Your task to perform on an android device: turn notification dots off Image 0: 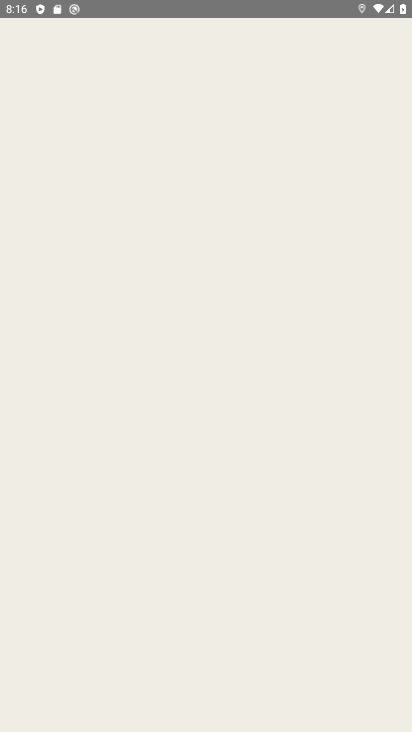
Step 0: drag from (246, 587) to (326, 62)
Your task to perform on an android device: turn notification dots off Image 1: 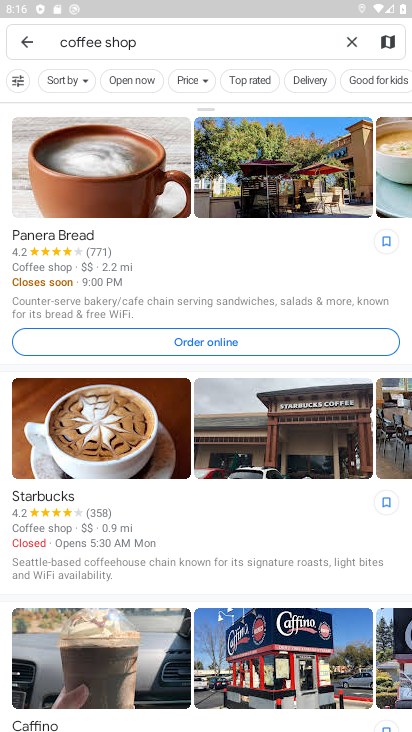
Step 1: press home button
Your task to perform on an android device: turn notification dots off Image 2: 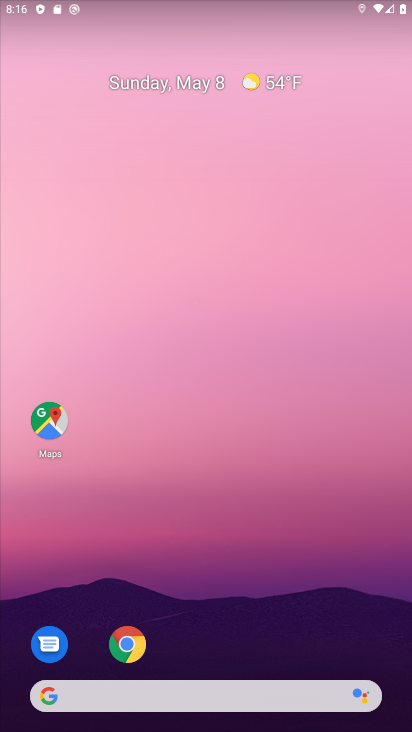
Step 2: press home button
Your task to perform on an android device: turn notification dots off Image 3: 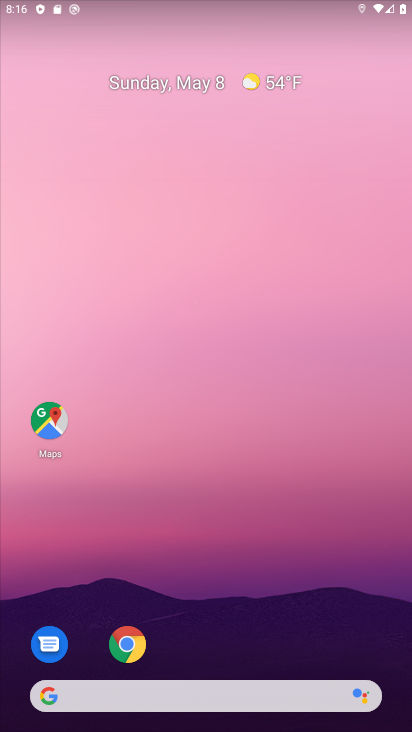
Step 3: drag from (174, 614) to (148, 13)
Your task to perform on an android device: turn notification dots off Image 4: 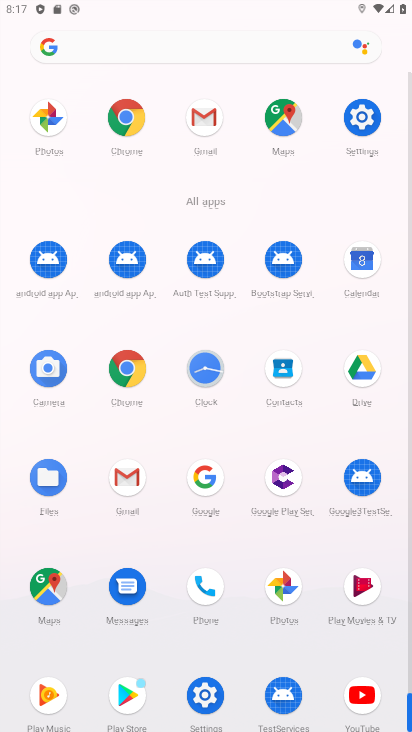
Step 4: click (372, 114)
Your task to perform on an android device: turn notification dots off Image 5: 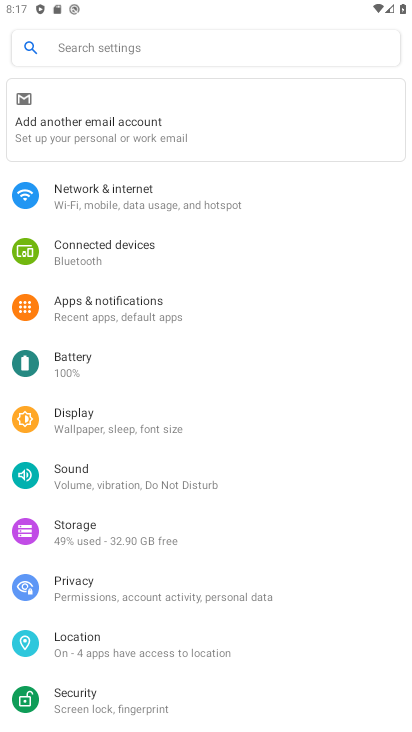
Step 5: click (120, 316)
Your task to perform on an android device: turn notification dots off Image 6: 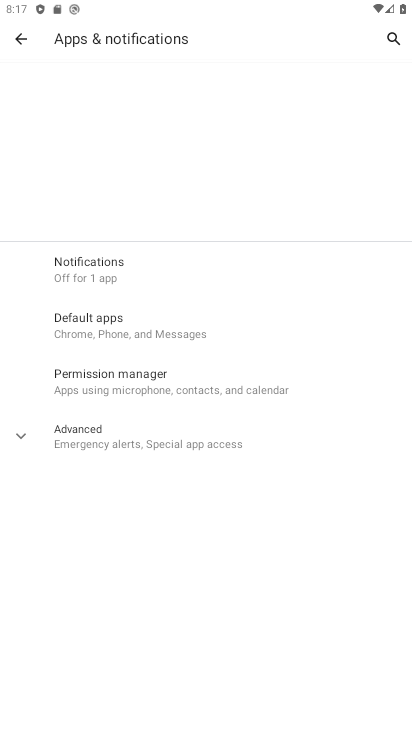
Step 6: drag from (205, 543) to (247, 136)
Your task to perform on an android device: turn notification dots off Image 7: 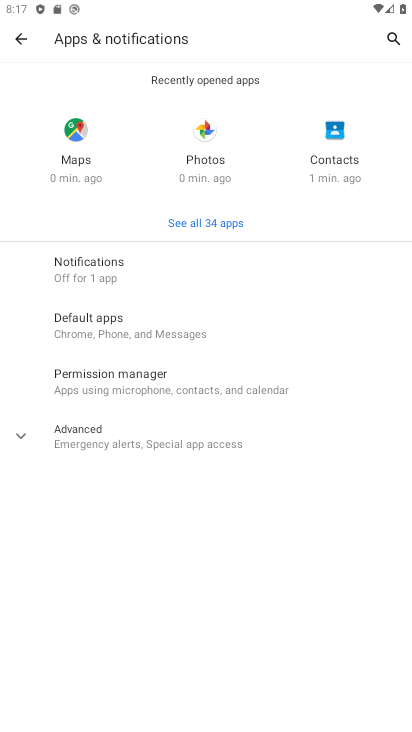
Step 7: click (103, 270)
Your task to perform on an android device: turn notification dots off Image 8: 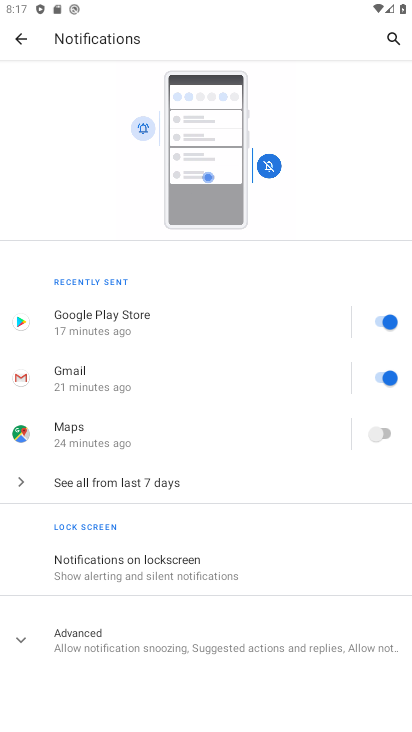
Step 8: drag from (246, 615) to (237, 278)
Your task to perform on an android device: turn notification dots off Image 9: 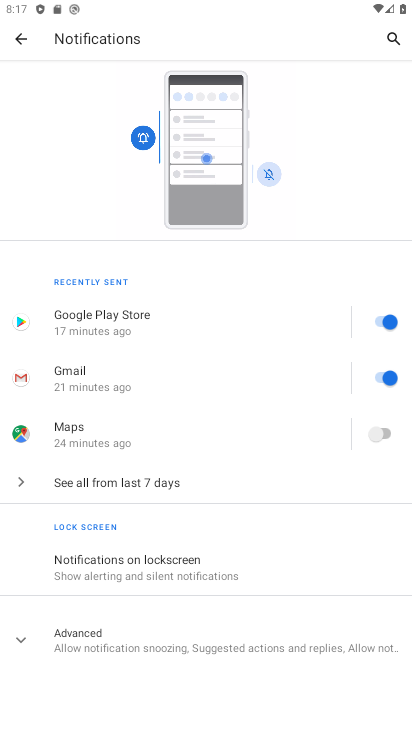
Step 9: click (125, 636)
Your task to perform on an android device: turn notification dots off Image 10: 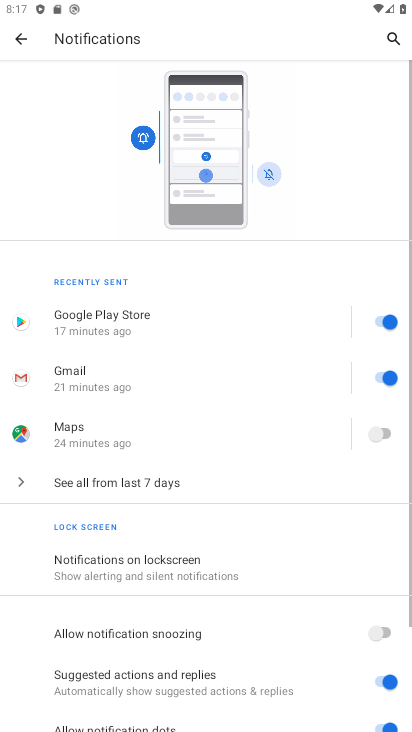
Step 10: drag from (223, 643) to (266, 301)
Your task to perform on an android device: turn notification dots off Image 11: 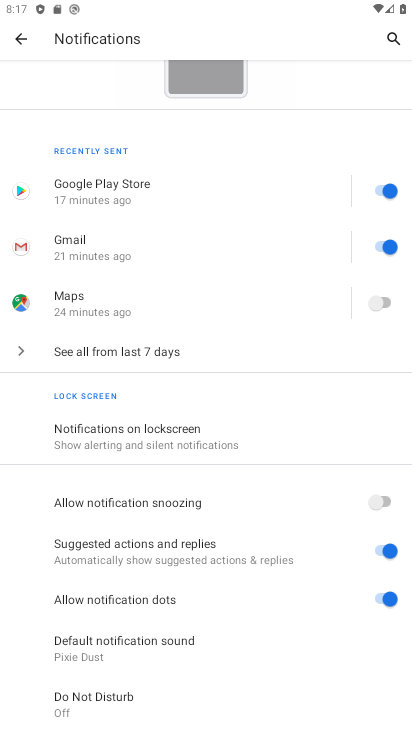
Step 11: click (369, 597)
Your task to perform on an android device: turn notification dots off Image 12: 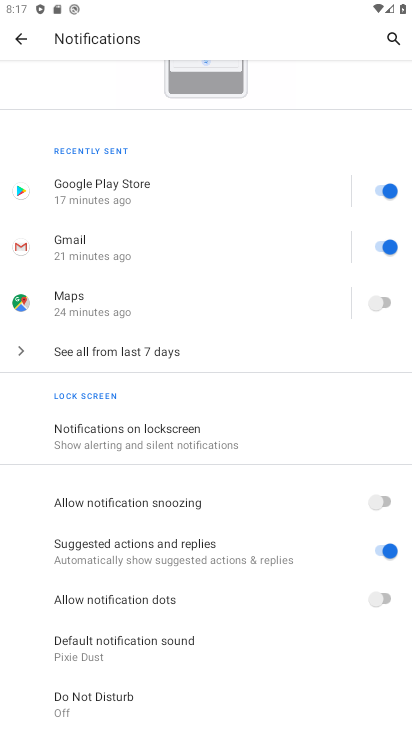
Step 12: task complete